Your task to perform on an android device: Search for Italian restaurants on Maps Image 0: 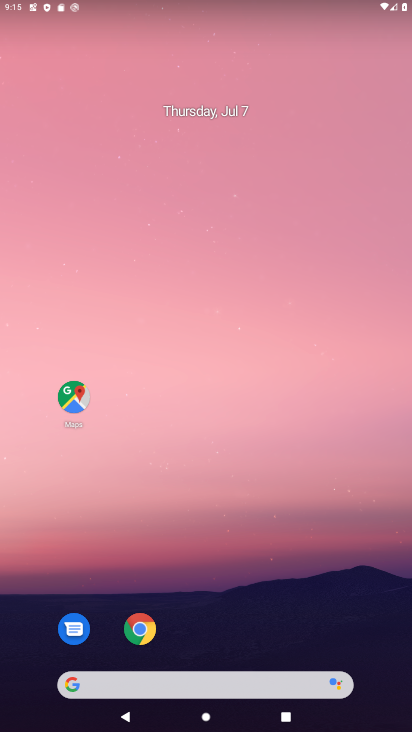
Step 0: click (75, 403)
Your task to perform on an android device: Search for Italian restaurants on Maps Image 1: 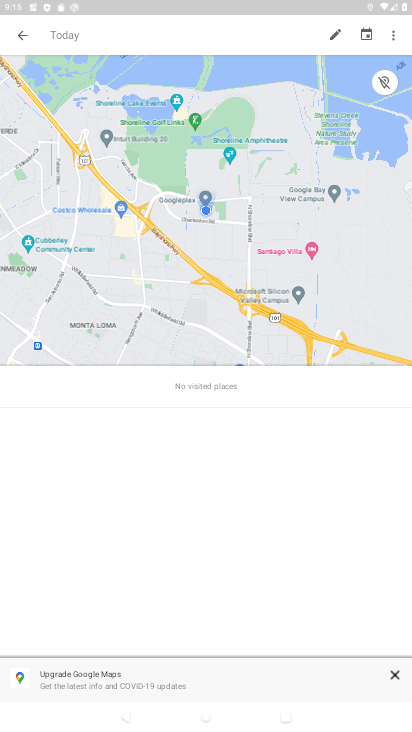
Step 1: click (23, 40)
Your task to perform on an android device: Search for Italian restaurants on Maps Image 2: 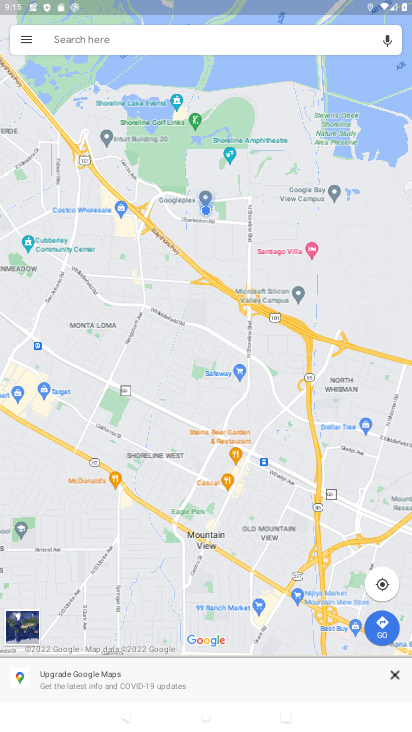
Step 2: click (192, 44)
Your task to perform on an android device: Search for Italian restaurants on Maps Image 3: 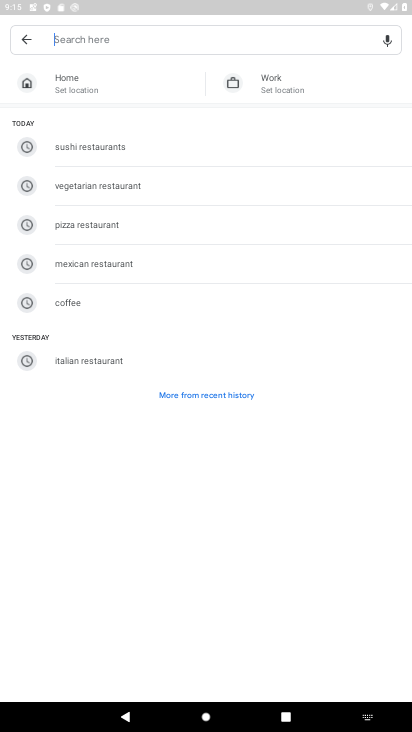
Step 3: type "Italian restaurants"
Your task to perform on an android device: Search for Italian restaurants on Maps Image 4: 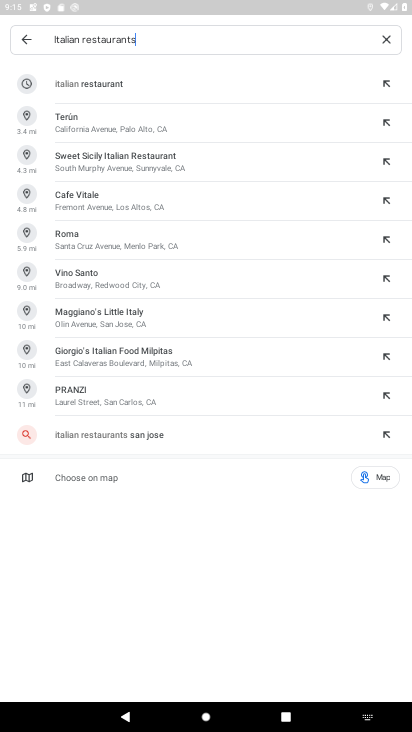
Step 4: click (116, 83)
Your task to perform on an android device: Search for Italian restaurants on Maps Image 5: 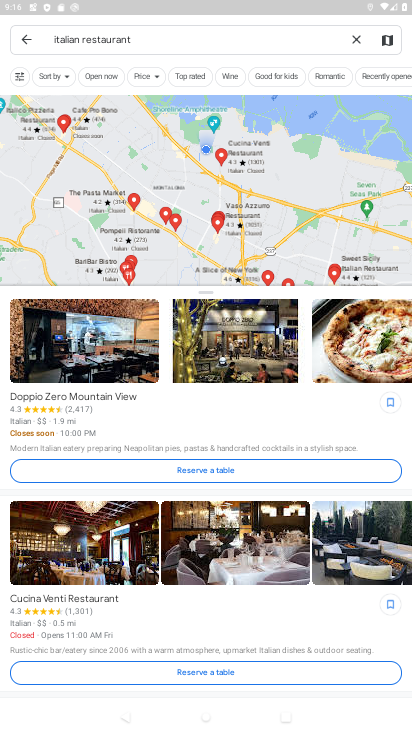
Step 5: task complete